Your task to perform on an android device: toggle improve location accuracy Image 0: 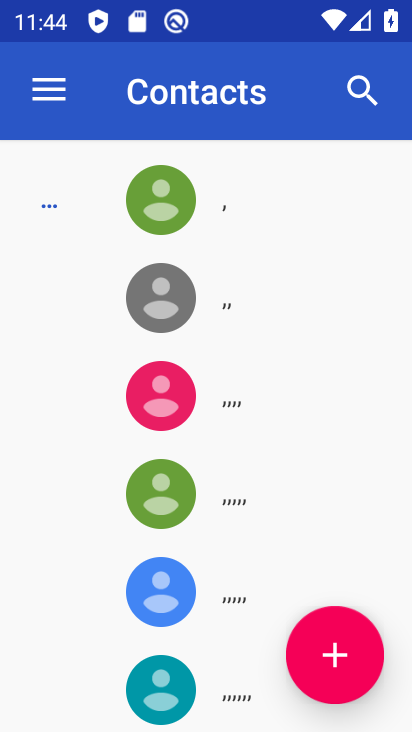
Step 0: press home button
Your task to perform on an android device: toggle improve location accuracy Image 1: 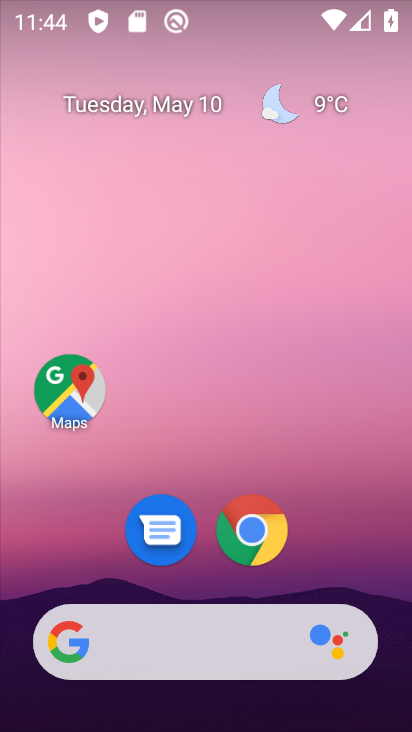
Step 1: drag from (361, 556) to (336, 450)
Your task to perform on an android device: toggle improve location accuracy Image 2: 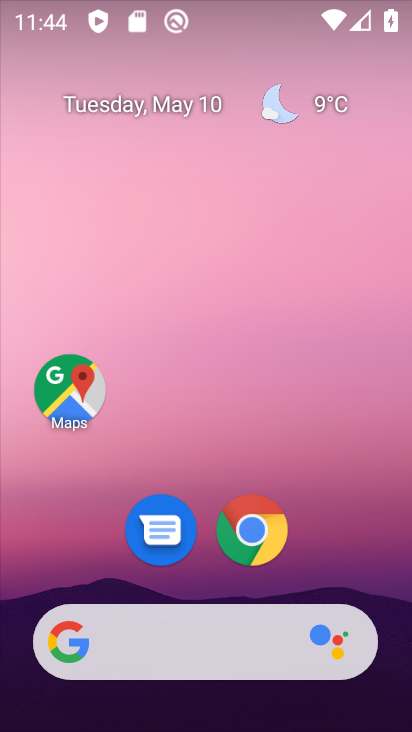
Step 2: drag from (348, 485) to (289, 33)
Your task to perform on an android device: toggle improve location accuracy Image 3: 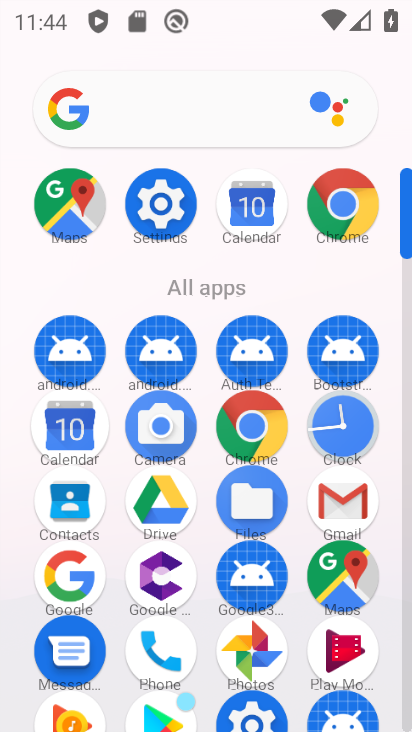
Step 3: click (173, 221)
Your task to perform on an android device: toggle improve location accuracy Image 4: 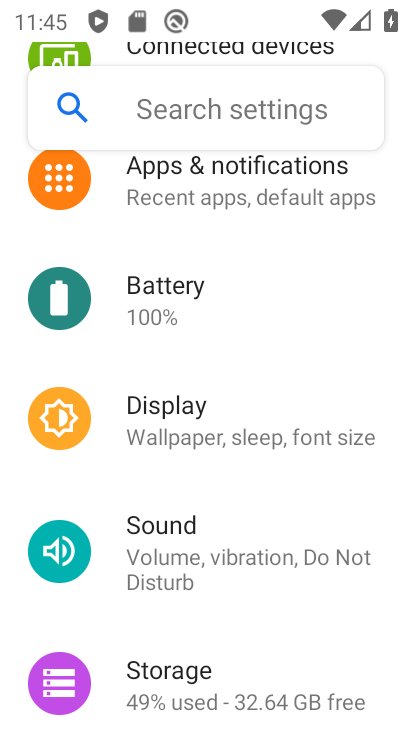
Step 4: drag from (220, 480) to (233, 78)
Your task to perform on an android device: toggle improve location accuracy Image 5: 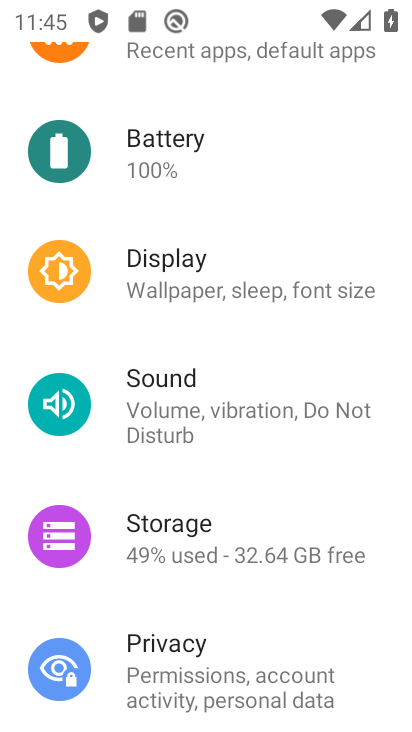
Step 5: drag from (230, 589) to (158, 12)
Your task to perform on an android device: toggle improve location accuracy Image 6: 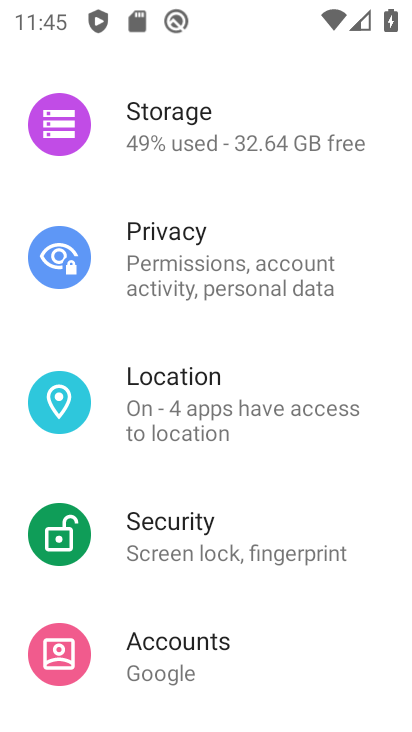
Step 6: click (206, 422)
Your task to perform on an android device: toggle improve location accuracy Image 7: 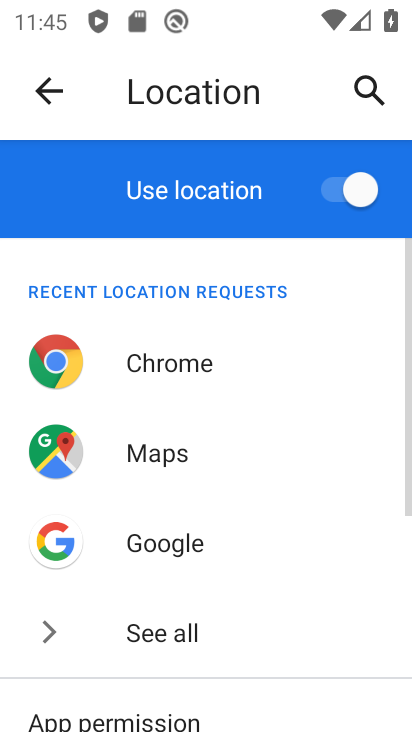
Step 7: drag from (261, 611) to (228, 199)
Your task to perform on an android device: toggle improve location accuracy Image 8: 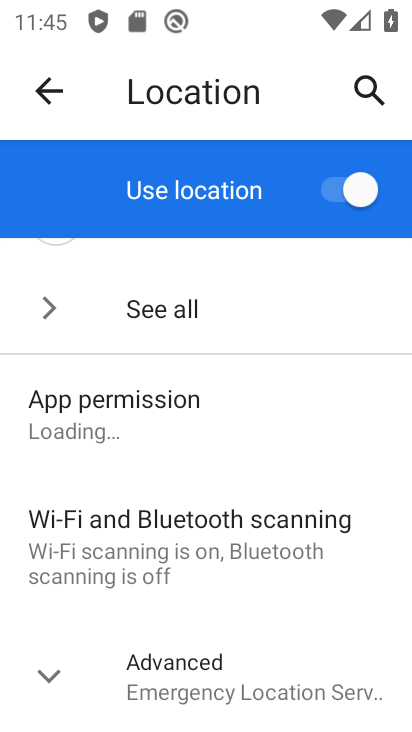
Step 8: click (229, 680)
Your task to perform on an android device: toggle improve location accuracy Image 9: 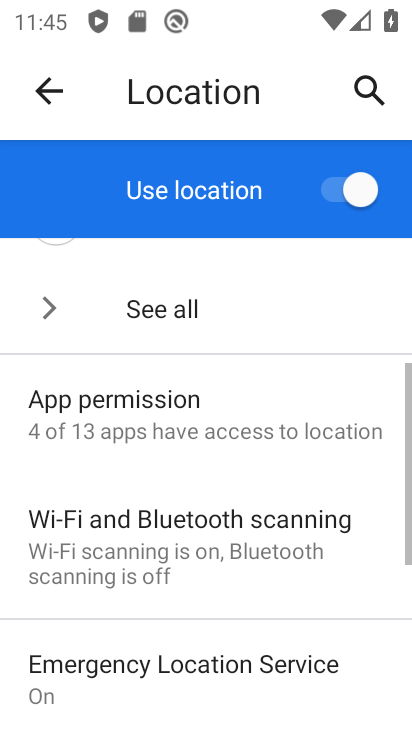
Step 9: drag from (224, 681) to (199, 427)
Your task to perform on an android device: toggle improve location accuracy Image 10: 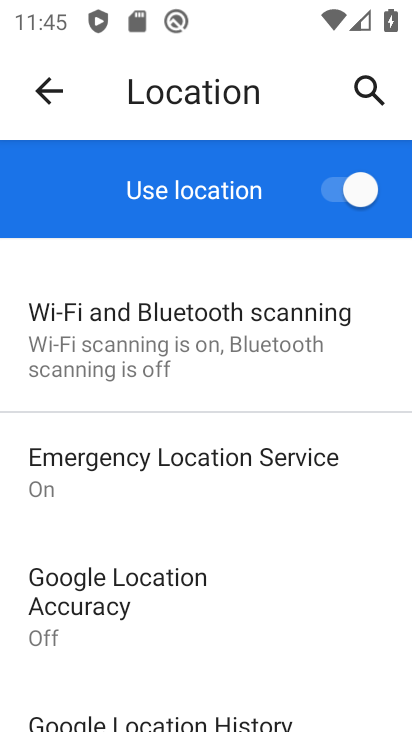
Step 10: click (180, 579)
Your task to perform on an android device: toggle improve location accuracy Image 11: 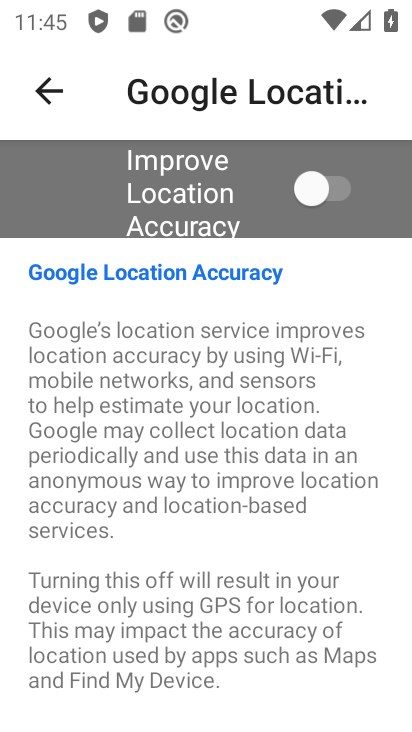
Step 11: click (318, 190)
Your task to perform on an android device: toggle improve location accuracy Image 12: 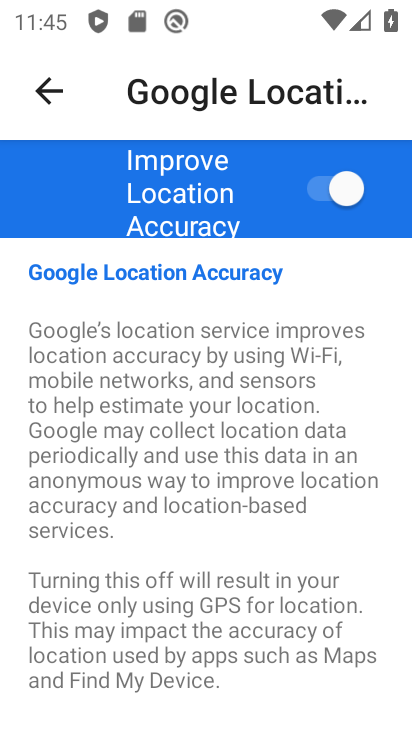
Step 12: task complete